Your task to perform on an android device: toggle notification dots Image 0: 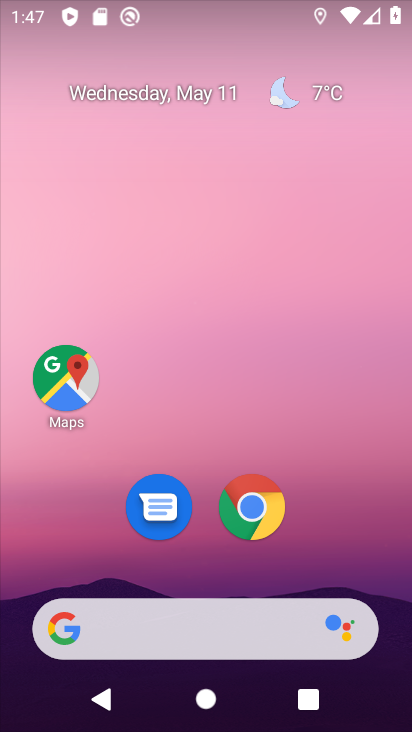
Step 0: drag from (335, 555) to (265, 34)
Your task to perform on an android device: toggle notification dots Image 1: 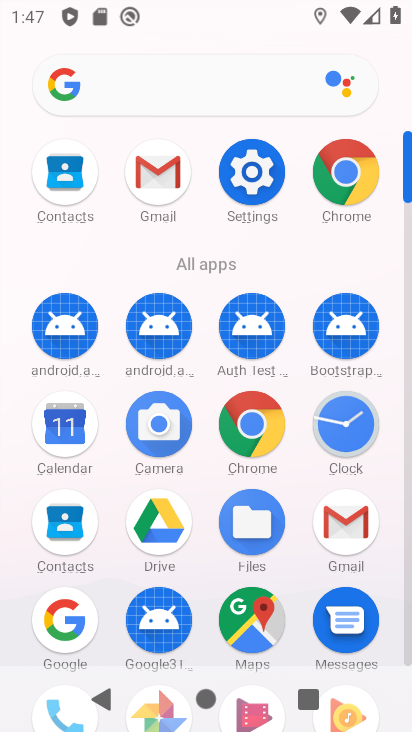
Step 1: drag from (18, 567) to (27, 259)
Your task to perform on an android device: toggle notification dots Image 2: 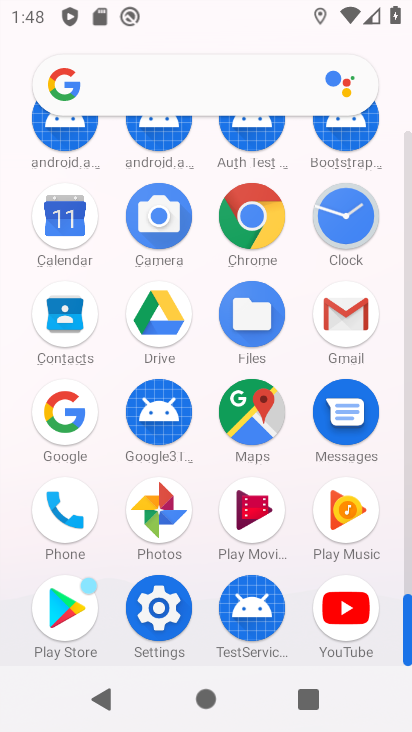
Step 2: click (154, 604)
Your task to perform on an android device: toggle notification dots Image 3: 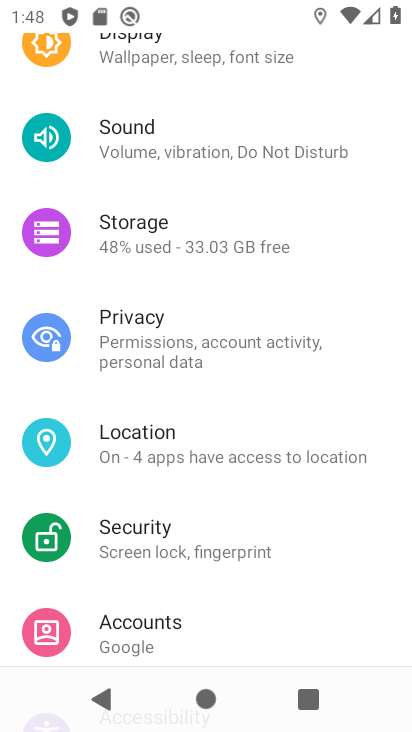
Step 3: drag from (284, 222) to (269, 563)
Your task to perform on an android device: toggle notification dots Image 4: 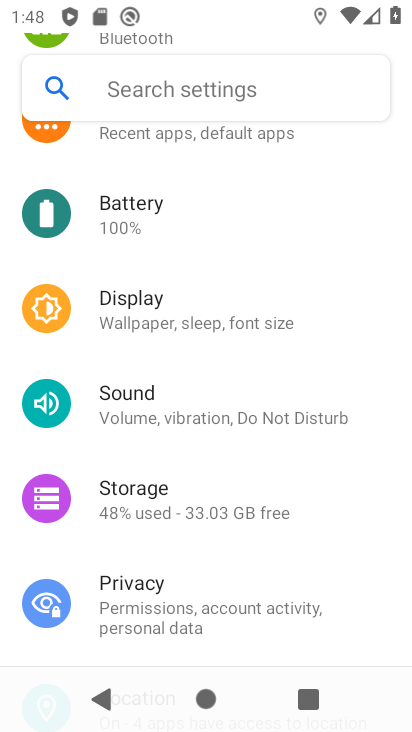
Step 4: drag from (257, 207) to (262, 574)
Your task to perform on an android device: toggle notification dots Image 5: 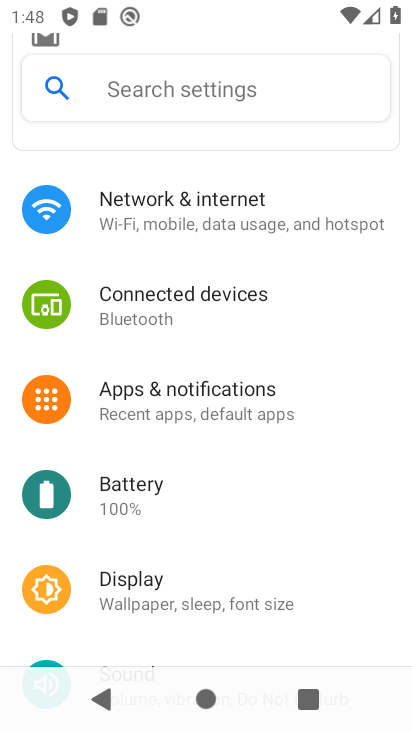
Step 5: click (224, 397)
Your task to perform on an android device: toggle notification dots Image 6: 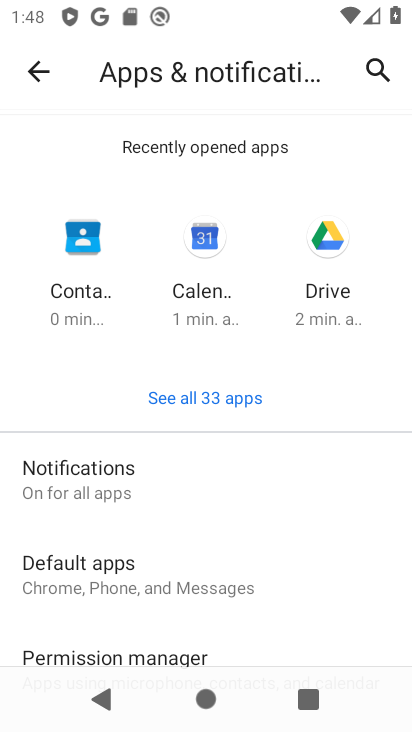
Step 6: drag from (241, 532) to (244, 182)
Your task to perform on an android device: toggle notification dots Image 7: 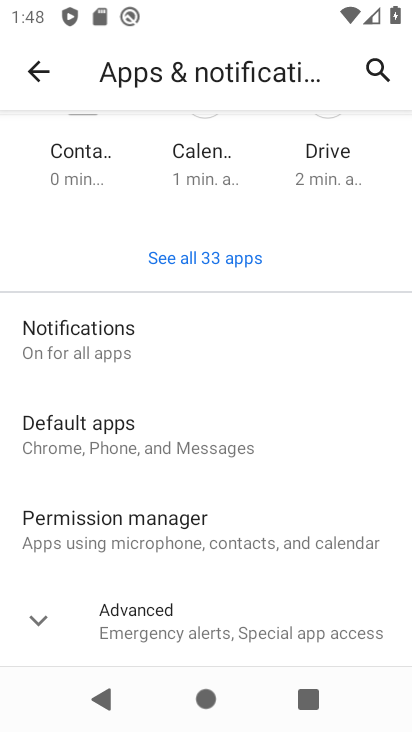
Step 7: click (54, 605)
Your task to perform on an android device: toggle notification dots Image 8: 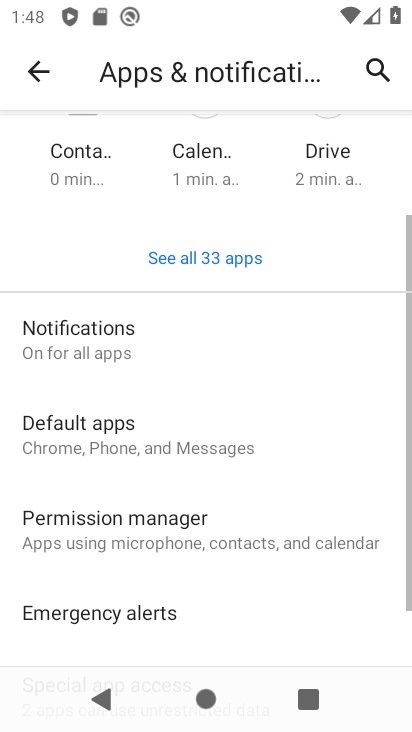
Step 8: drag from (319, 607) to (333, 222)
Your task to perform on an android device: toggle notification dots Image 9: 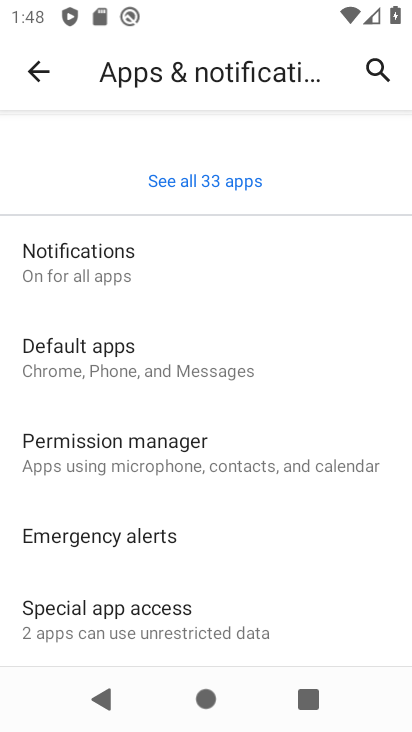
Step 9: drag from (234, 502) to (267, 184)
Your task to perform on an android device: toggle notification dots Image 10: 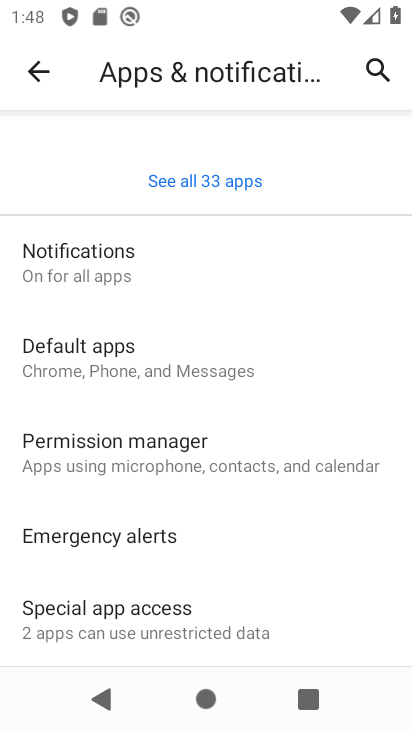
Step 10: click (189, 611)
Your task to perform on an android device: toggle notification dots Image 11: 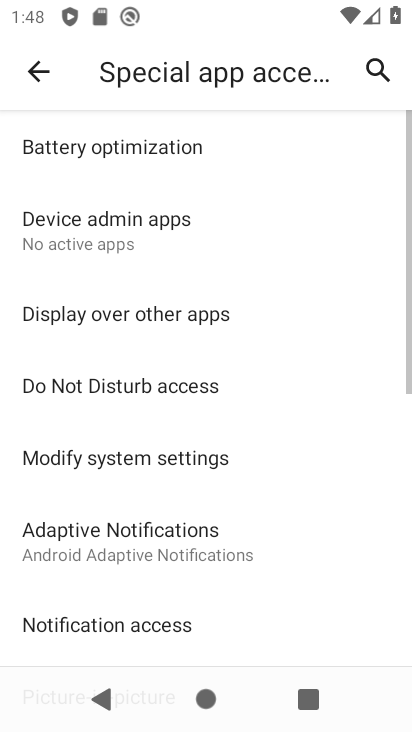
Step 11: drag from (283, 536) to (306, 166)
Your task to perform on an android device: toggle notification dots Image 12: 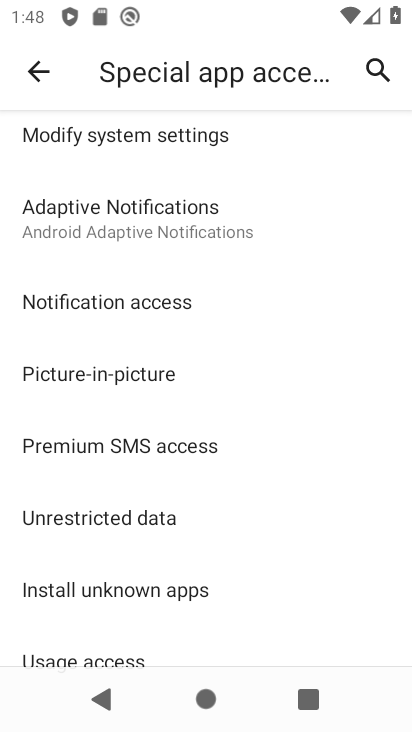
Step 12: click (47, 63)
Your task to perform on an android device: toggle notification dots Image 13: 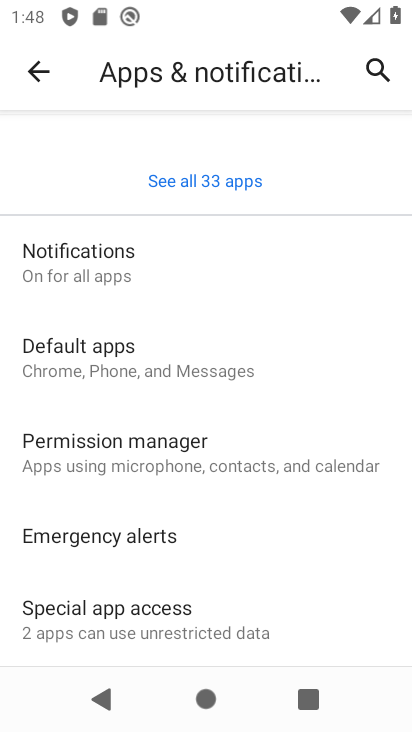
Step 13: click (137, 266)
Your task to perform on an android device: toggle notification dots Image 14: 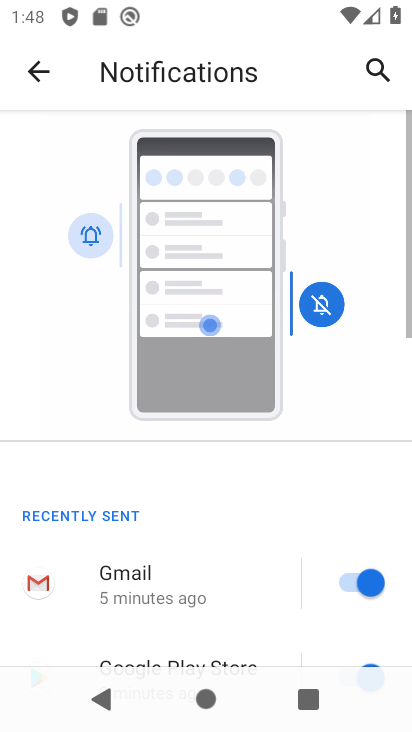
Step 14: drag from (198, 596) to (245, 125)
Your task to perform on an android device: toggle notification dots Image 15: 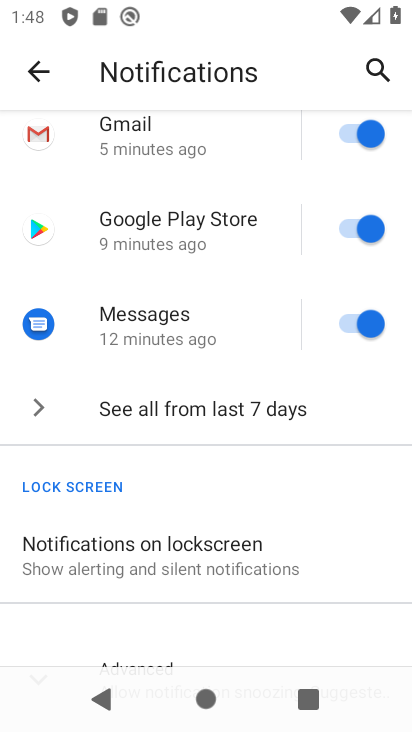
Step 15: drag from (170, 561) to (183, 211)
Your task to perform on an android device: toggle notification dots Image 16: 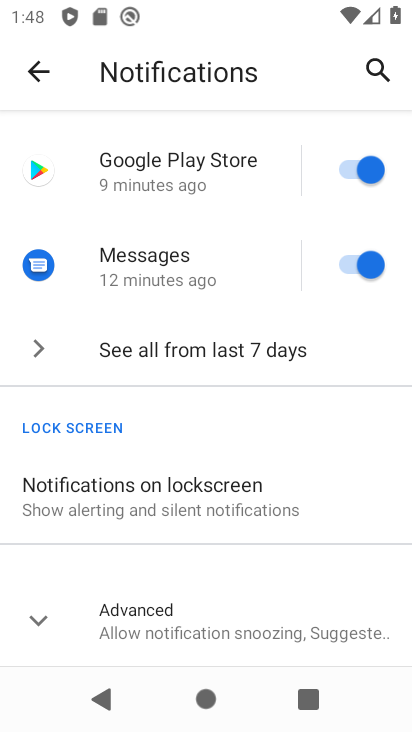
Step 16: click (58, 620)
Your task to perform on an android device: toggle notification dots Image 17: 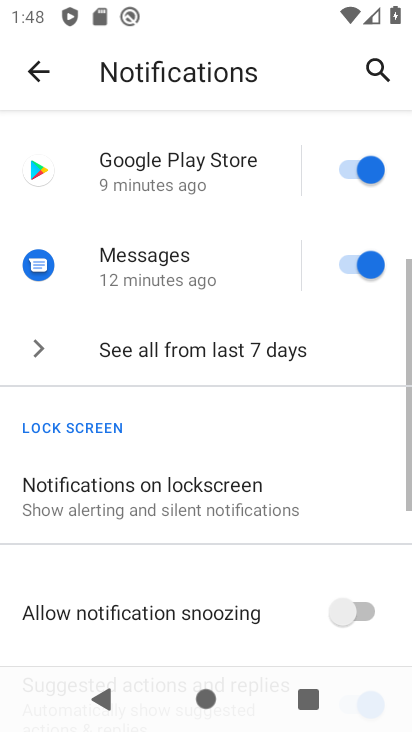
Step 17: drag from (186, 569) to (207, 114)
Your task to perform on an android device: toggle notification dots Image 18: 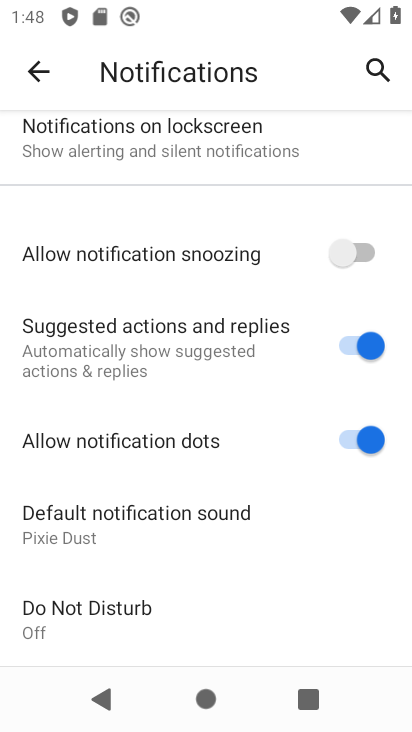
Step 18: click (365, 441)
Your task to perform on an android device: toggle notification dots Image 19: 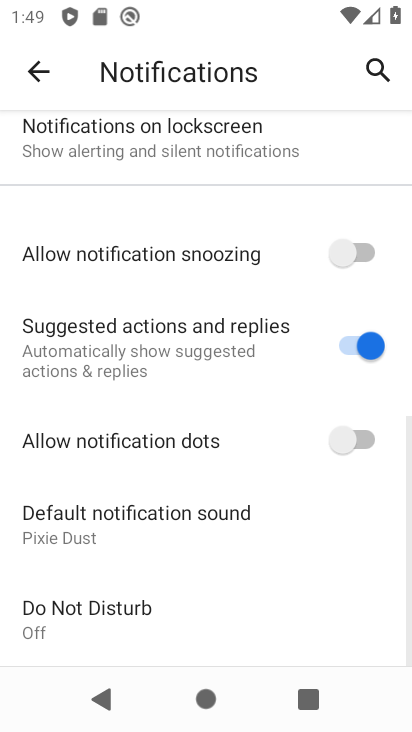
Step 19: task complete